Your task to perform on an android device: check battery use Image 0: 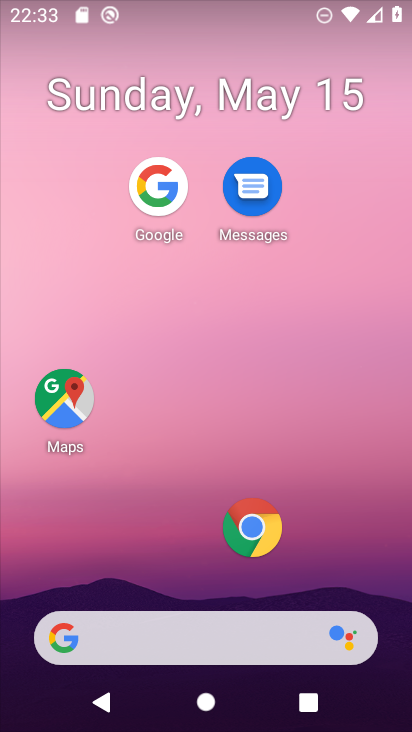
Step 0: press home button
Your task to perform on an android device: check battery use Image 1: 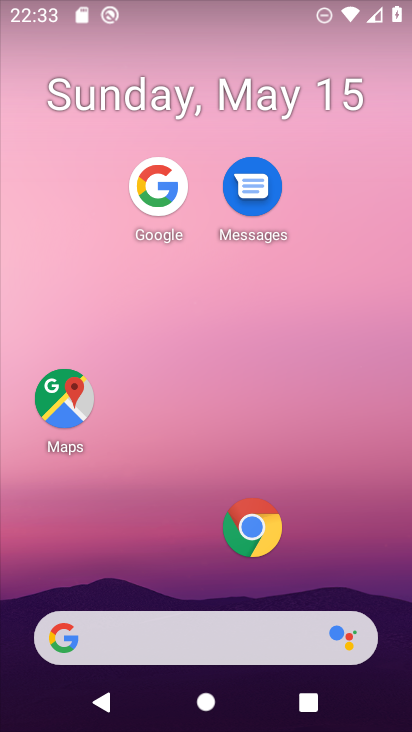
Step 1: drag from (159, 544) to (293, 133)
Your task to perform on an android device: check battery use Image 2: 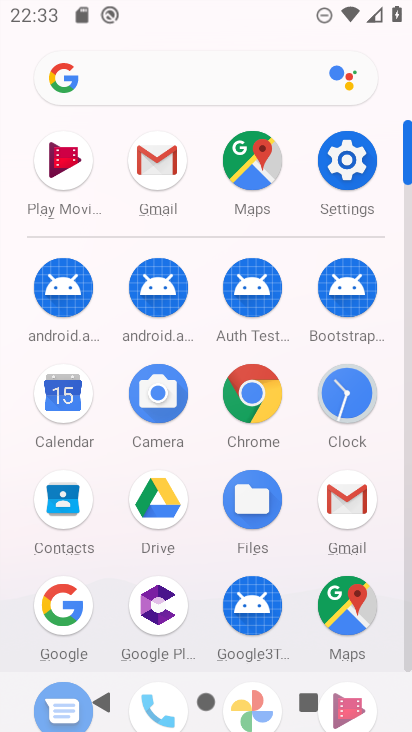
Step 2: click (336, 163)
Your task to perform on an android device: check battery use Image 3: 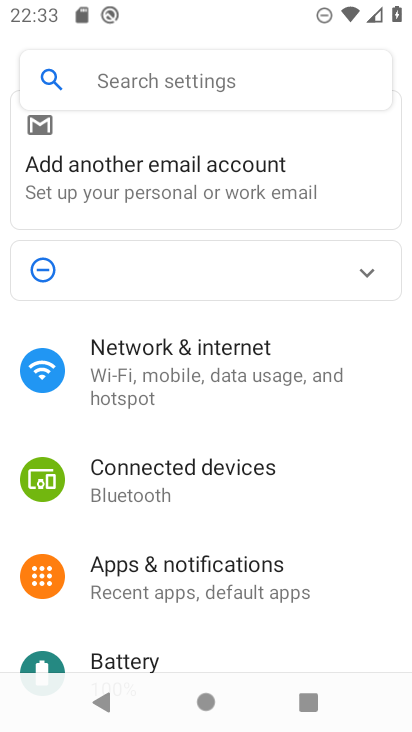
Step 3: drag from (216, 634) to (379, 246)
Your task to perform on an android device: check battery use Image 4: 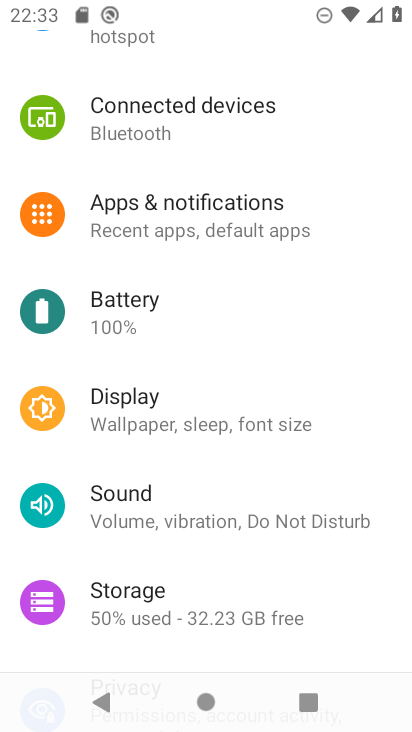
Step 4: click (154, 300)
Your task to perform on an android device: check battery use Image 5: 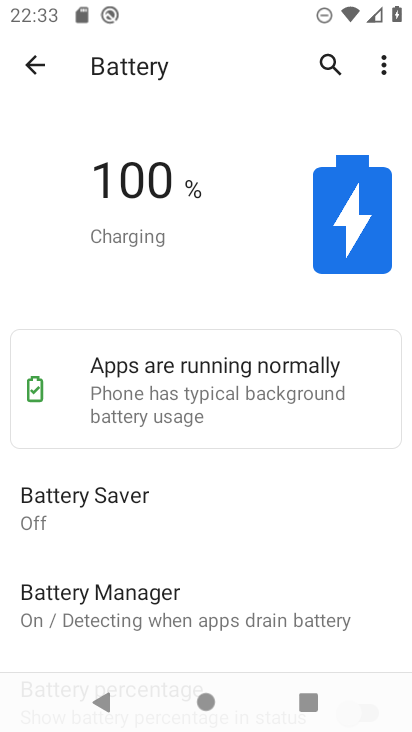
Step 5: click (382, 66)
Your task to perform on an android device: check battery use Image 6: 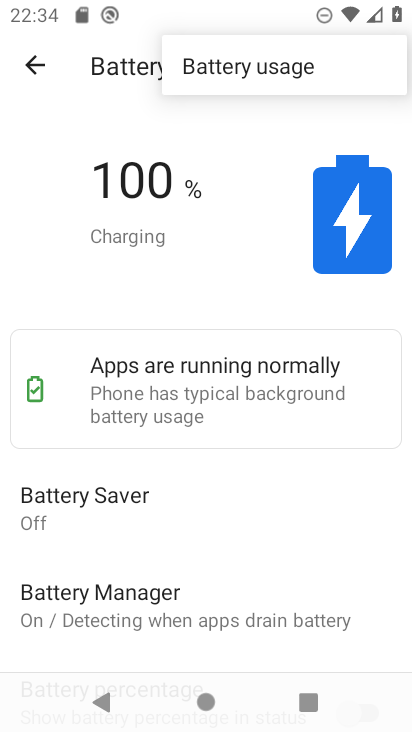
Step 6: click (273, 70)
Your task to perform on an android device: check battery use Image 7: 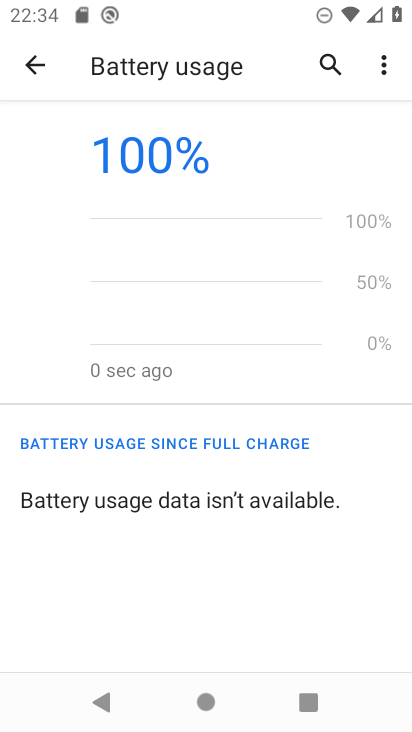
Step 7: task complete